Your task to perform on an android device: show emergency info Image 0: 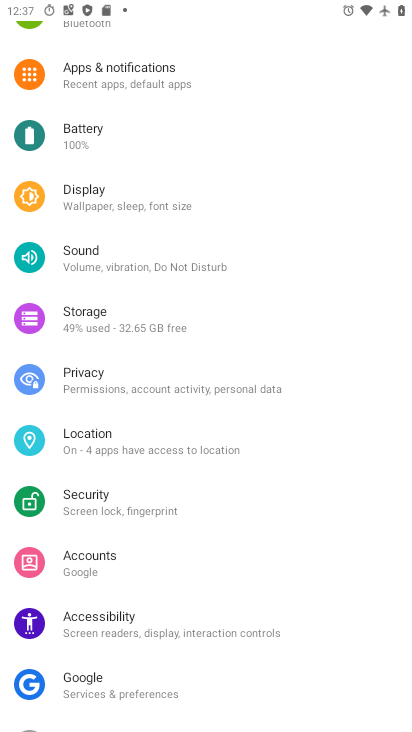
Step 0: drag from (193, 652) to (200, 185)
Your task to perform on an android device: show emergency info Image 1: 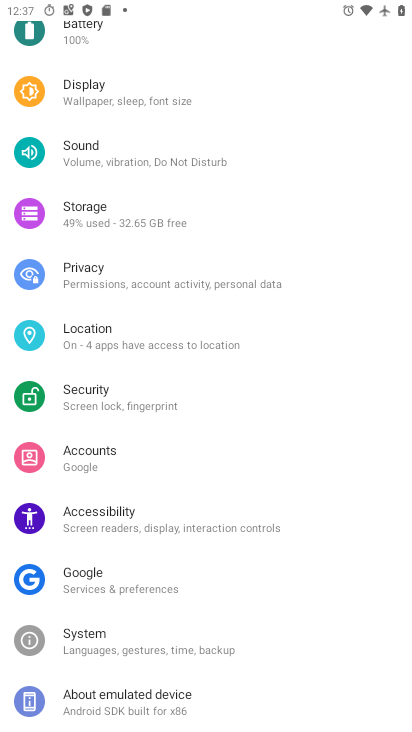
Step 1: click (155, 683)
Your task to perform on an android device: show emergency info Image 2: 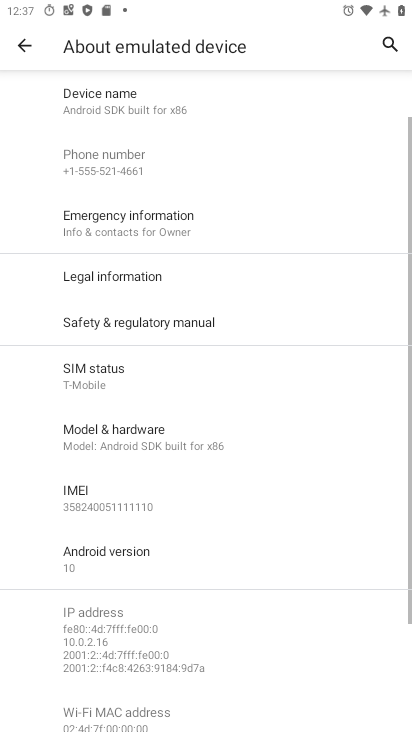
Step 2: click (146, 238)
Your task to perform on an android device: show emergency info Image 3: 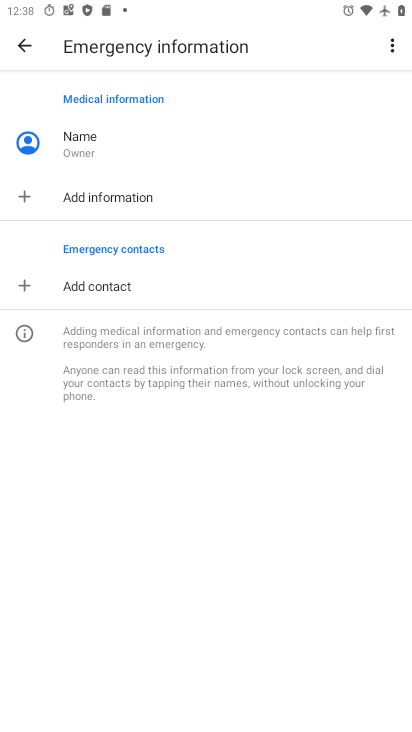
Step 3: task complete